Your task to perform on an android device: Open the stopwatch Image 0: 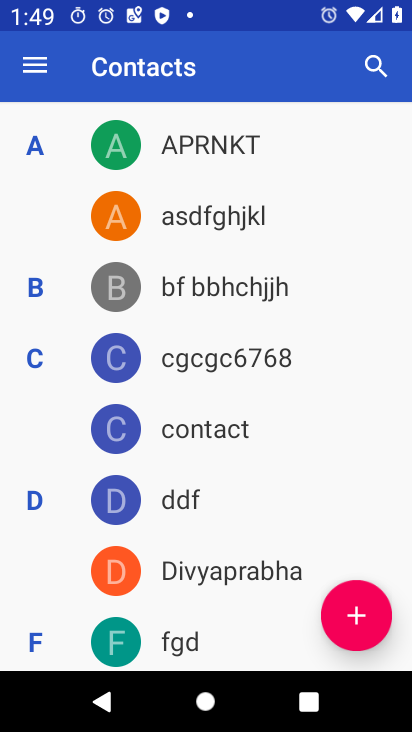
Step 0: press home button
Your task to perform on an android device: Open the stopwatch Image 1: 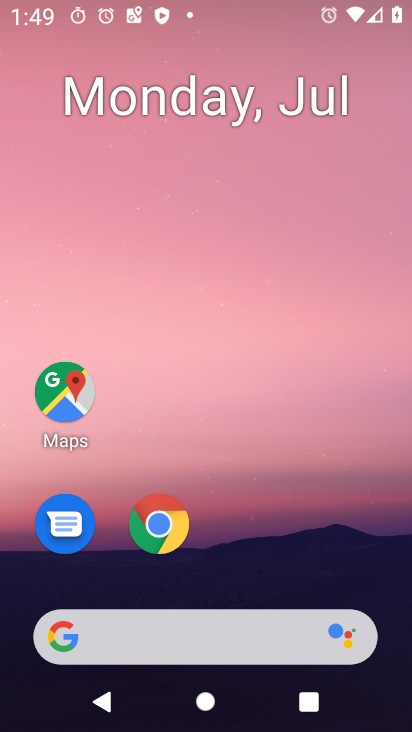
Step 1: drag from (322, 488) to (407, 515)
Your task to perform on an android device: Open the stopwatch Image 2: 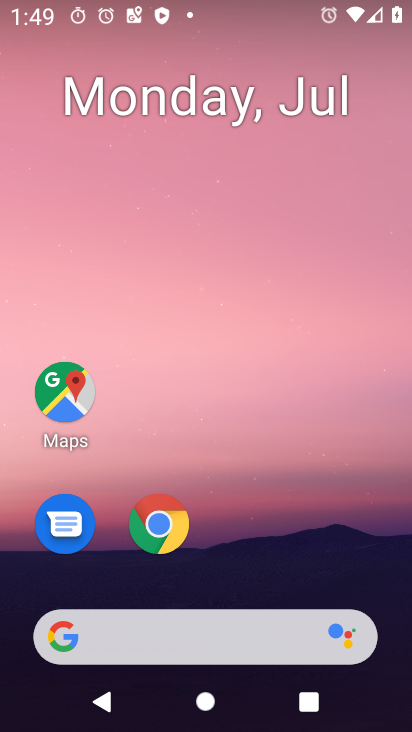
Step 2: drag from (323, 573) to (309, 86)
Your task to perform on an android device: Open the stopwatch Image 3: 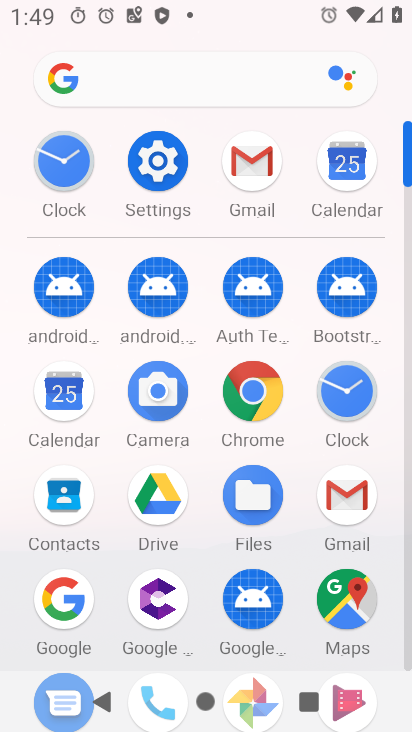
Step 3: click (352, 408)
Your task to perform on an android device: Open the stopwatch Image 4: 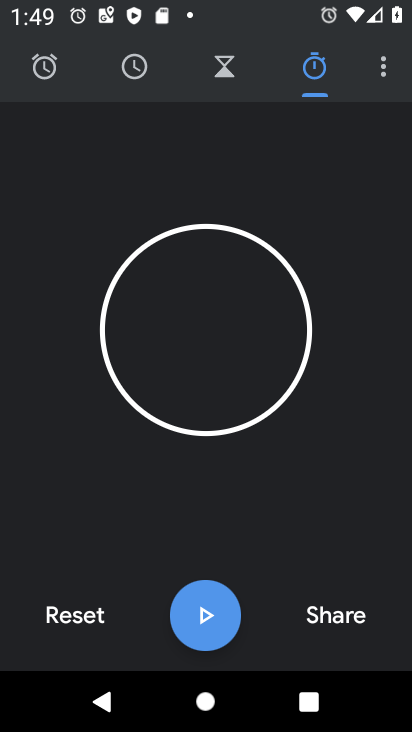
Step 4: click (210, 614)
Your task to perform on an android device: Open the stopwatch Image 5: 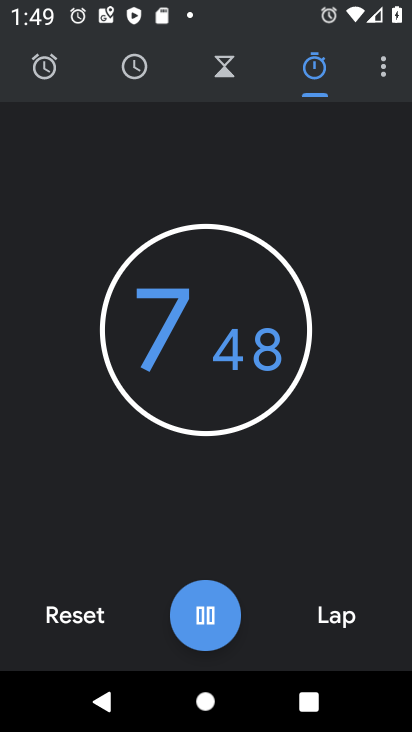
Step 5: click (192, 618)
Your task to perform on an android device: Open the stopwatch Image 6: 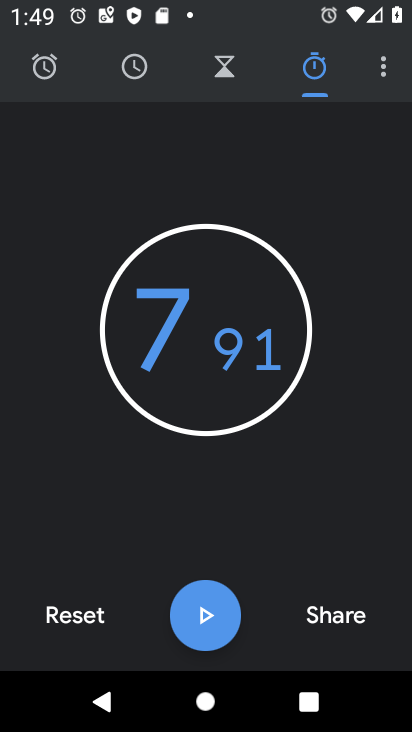
Step 6: task complete